Your task to perform on an android device: Open battery settings Image 0: 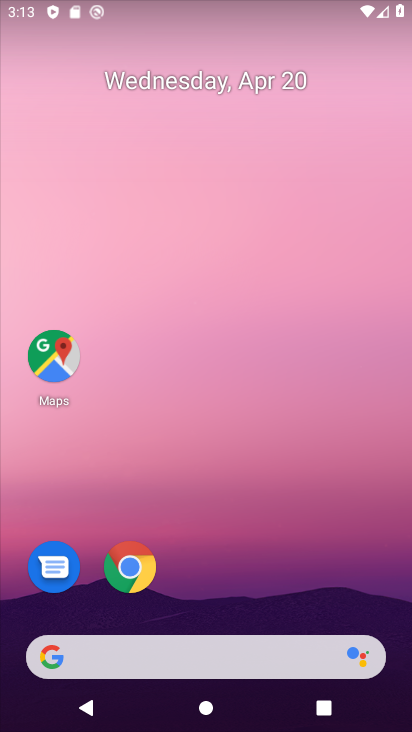
Step 0: drag from (291, 604) to (254, 173)
Your task to perform on an android device: Open battery settings Image 1: 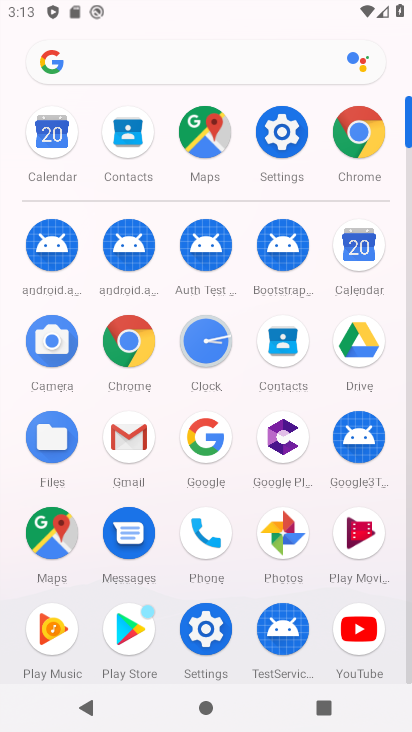
Step 1: click (286, 154)
Your task to perform on an android device: Open battery settings Image 2: 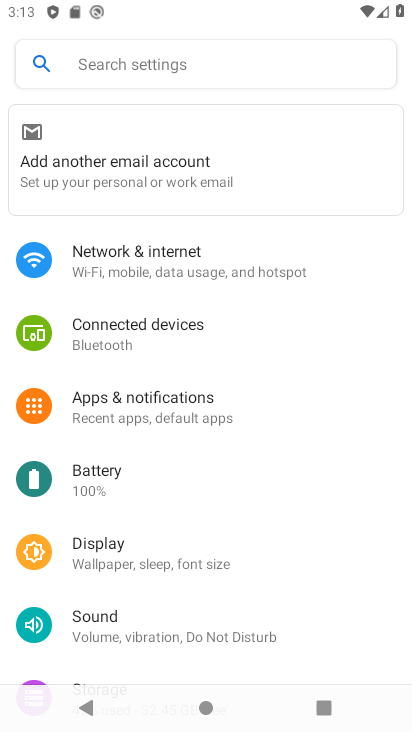
Step 2: click (282, 454)
Your task to perform on an android device: Open battery settings Image 3: 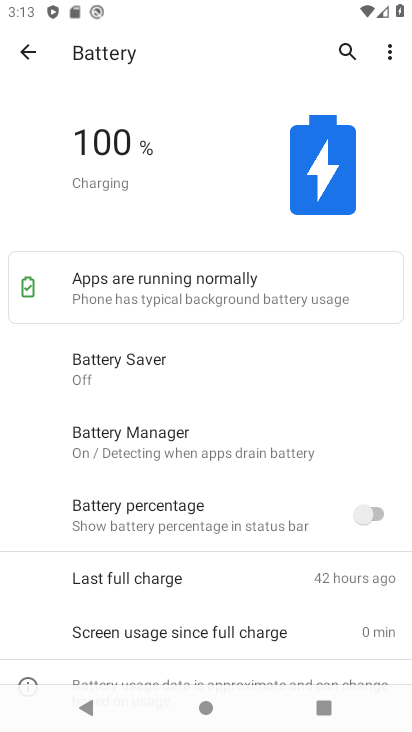
Step 3: task complete